Your task to perform on an android device: See recent photos Image 0: 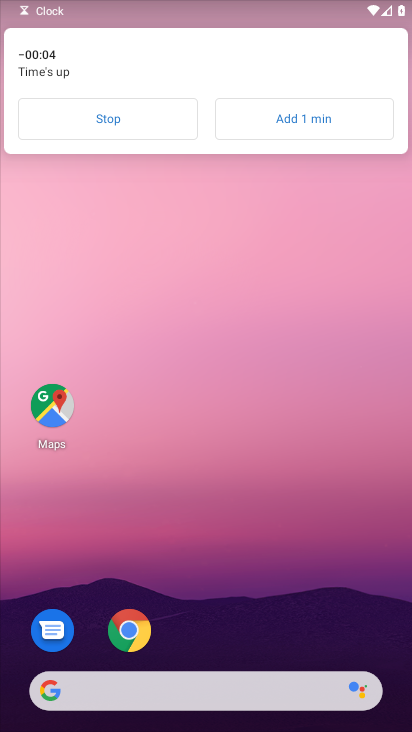
Step 0: click (131, 114)
Your task to perform on an android device: See recent photos Image 1: 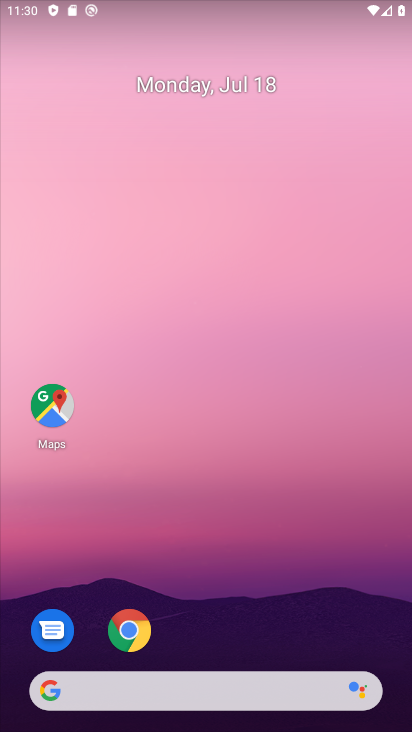
Step 1: drag from (190, 645) to (192, 195)
Your task to perform on an android device: See recent photos Image 2: 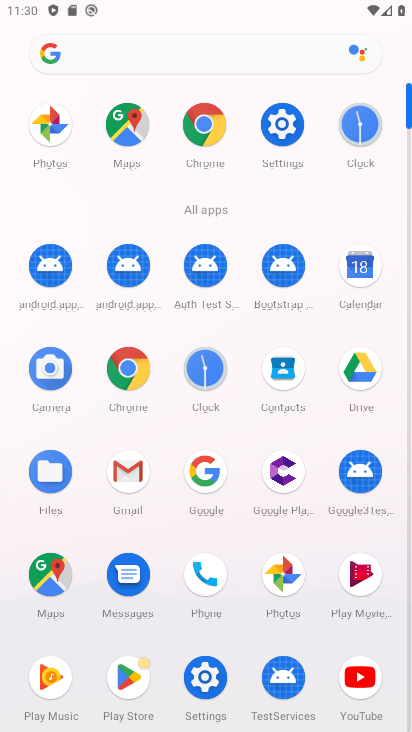
Step 2: click (49, 104)
Your task to perform on an android device: See recent photos Image 3: 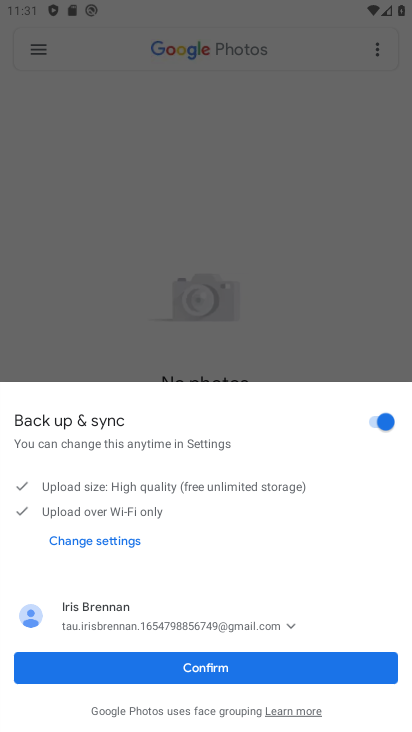
Step 3: click (224, 666)
Your task to perform on an android device: See recent photos Image 4: 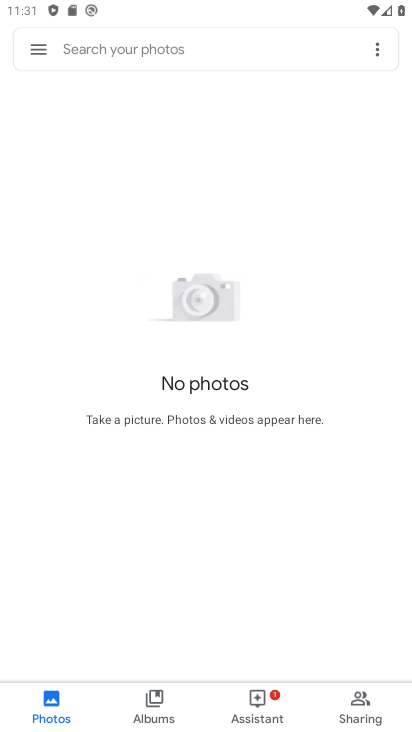
Step 4: task complete